Your task to perform on an android device: Open Google Chrome and click the shortcut for Amazon.com Image 0: 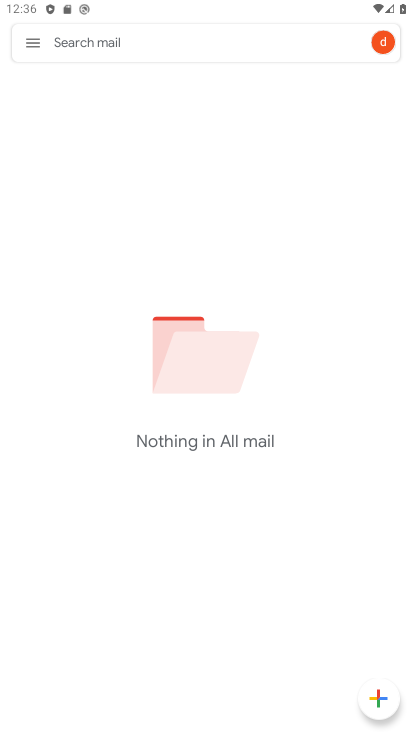
Step 0: press home button
Your task to perform on an android device: Open Google Chrome and click the shortcut for Amazon.com Image 1: 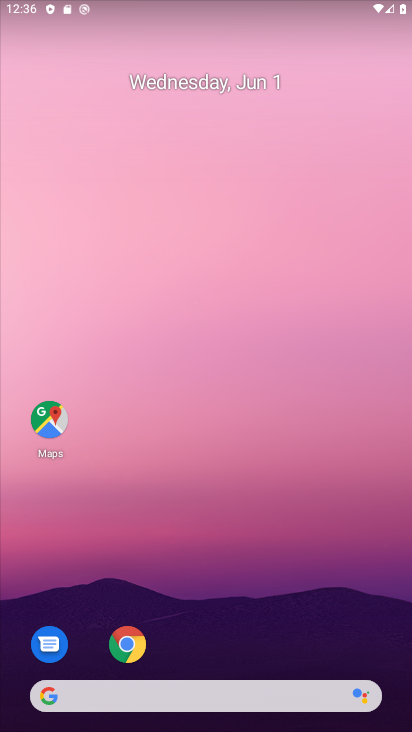
Step 1: click (137, 634)
Your task to perform on an android device: Open Google Chrome and click the shortcut for Amazon.com Image 2: 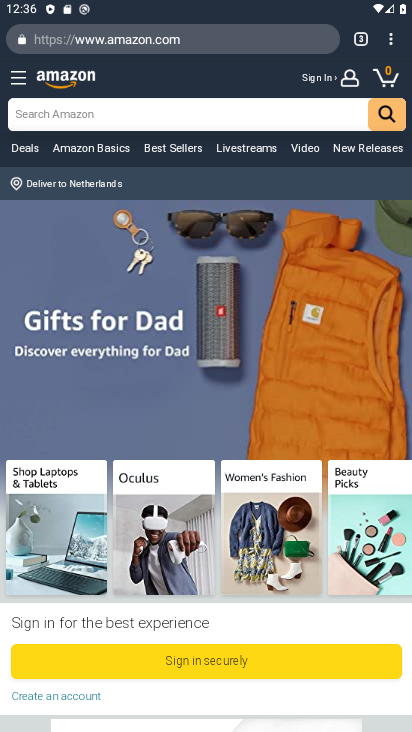
Step 2: task complete